Your task to perform on an android device: add a label to a message in the gmail app Image 0: 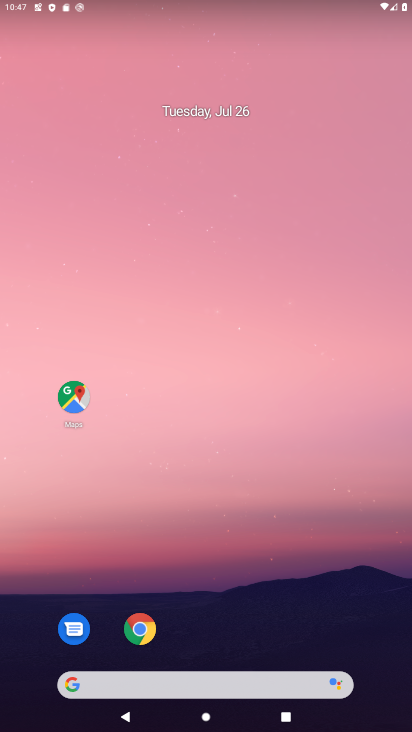
Step 0: drag from (349, 625) to (326, 216)
Your task to perform on an android device: add a label to a message in the gmail app Image 1: 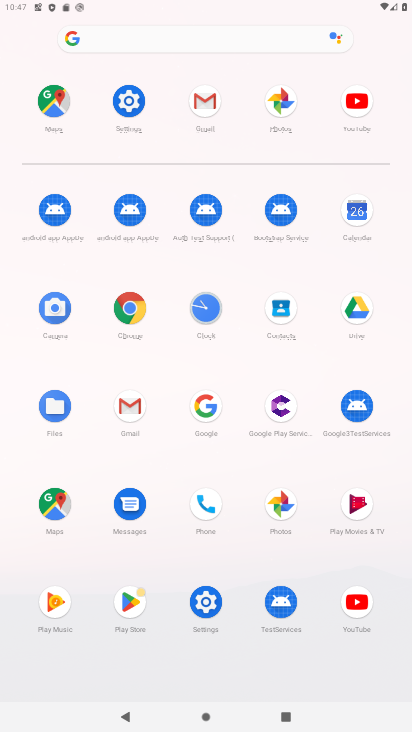
Step 1: click (207, 127)
Your task to perform on an android device: add a label to a message in the gmail app Image 2: 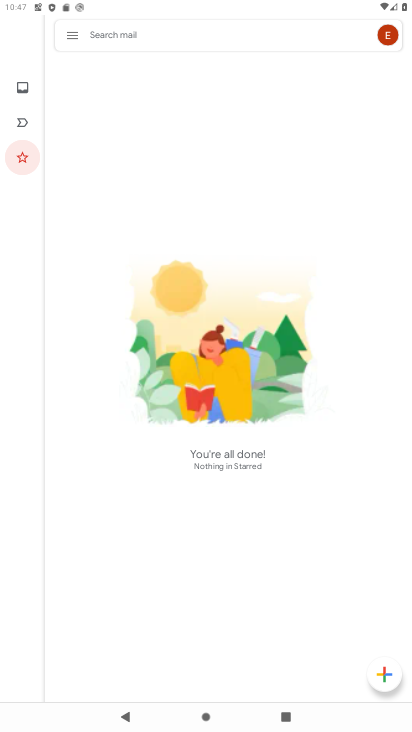
Step 2: click (63, 47)
Your task to perform on an android device: add a label to a message in the gmail app Image 3: 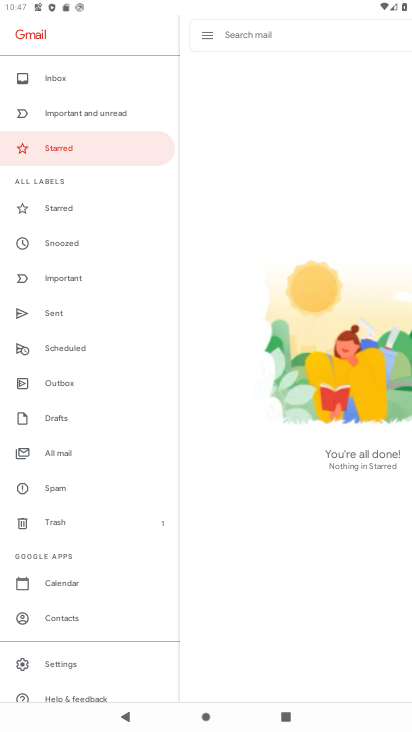
Step 3: task complete